Your task to perform on an android device: Open maps Image 0: 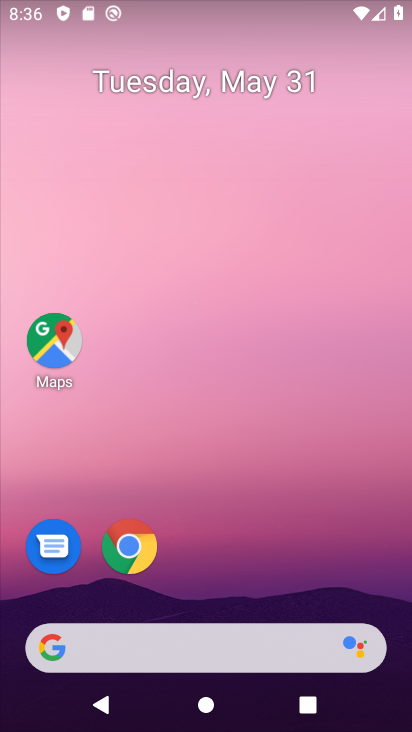
Step 0: click (62, 342)
Your task to perform on an android device: Open maps Image 1: 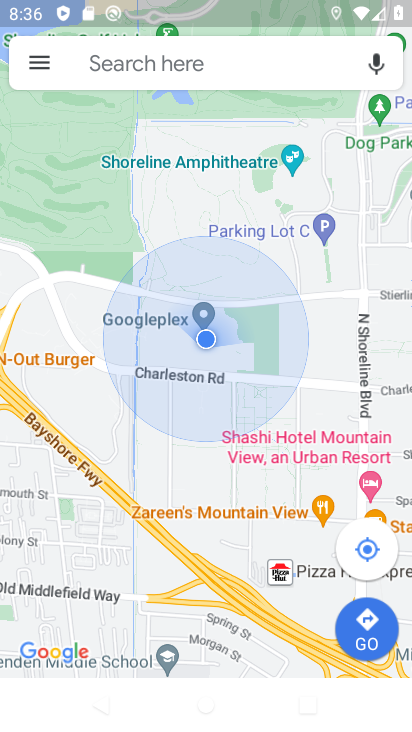
Step 1: task complete